Your task to perform on an android device: Open notification settings Image 0: 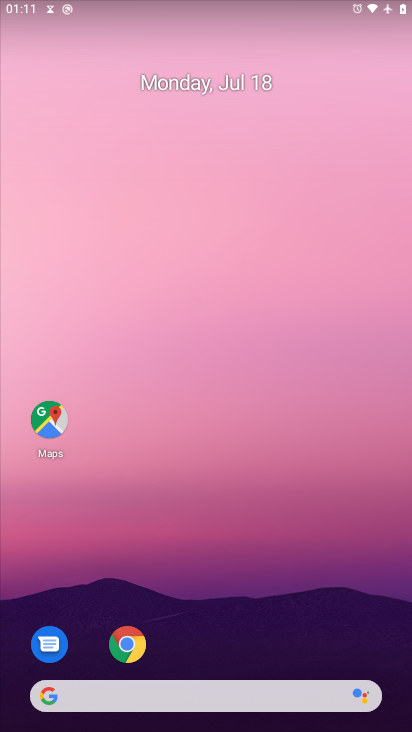
Step 0: press home button
Your task to perform on an android device: Open notification settings Image 1: 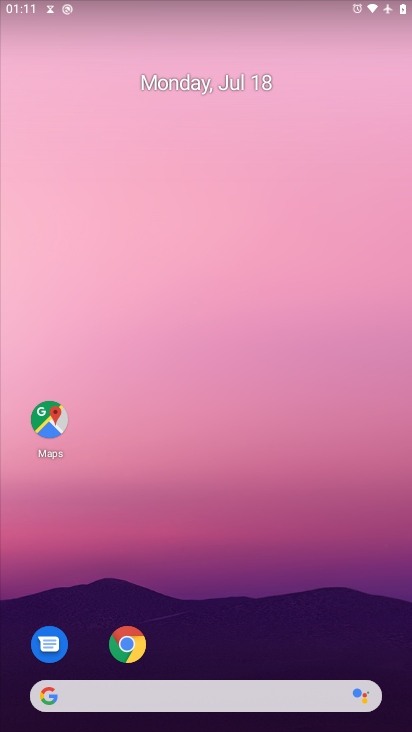
Step 1: drag from (221, 650) to (216, 6)
Your task to perform on an android device: Open notification settings Image 2: 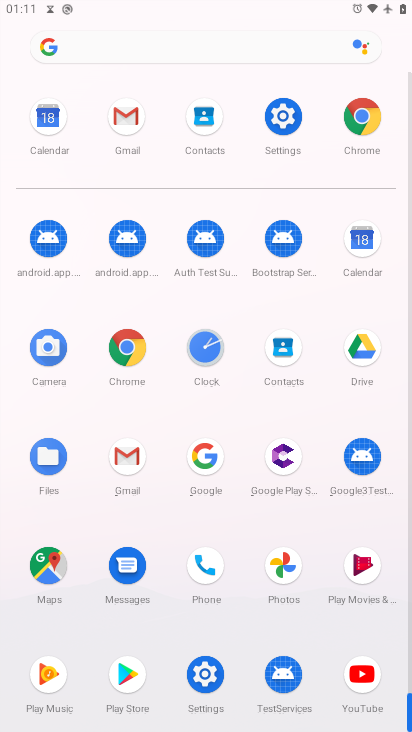
Step 2: click (272, 126)
Your task to perform on an android device: Open notification settings Image 3: 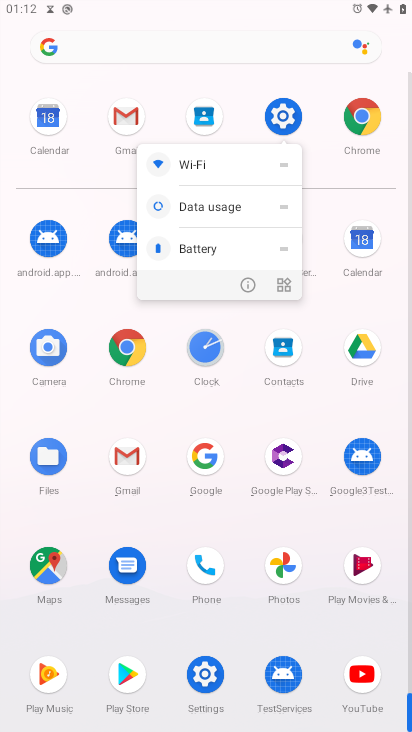
Step 3: click (281, 120)
Your task to perform on an android device: Open notification settings Image 4: 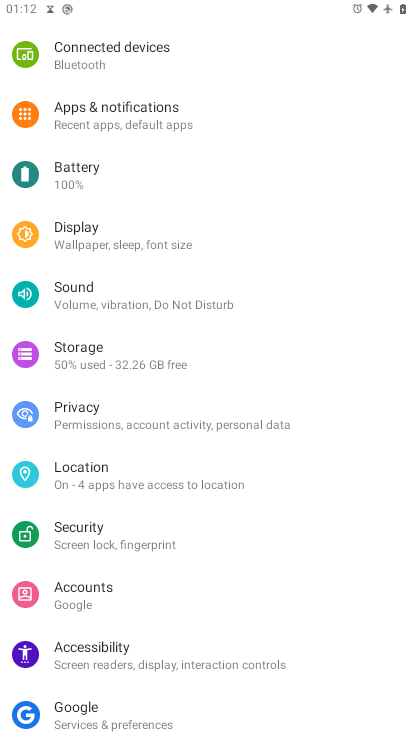
Step 4: click (133, 124)
Your task to perform on an android device: Open notification settings Image 5: 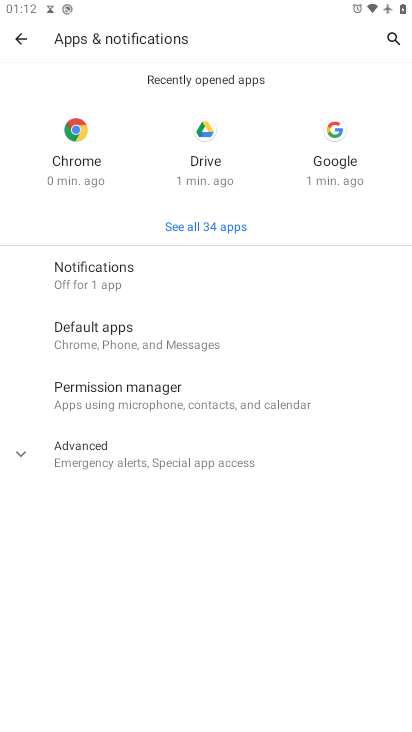
Step 5: click (112, 267)
Your task to perform on an android device: Open notification settings Image 6: 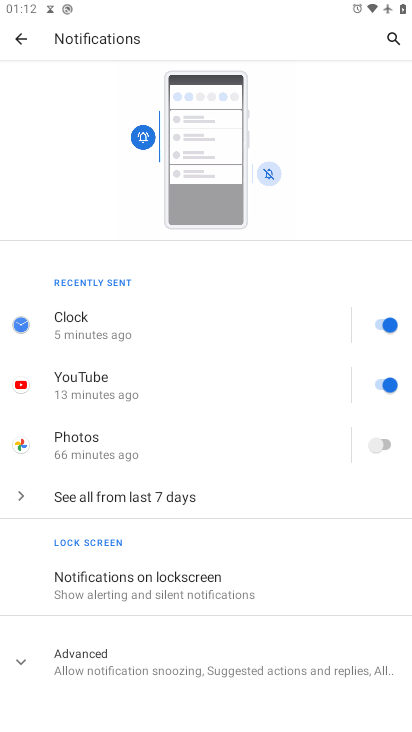
Step 6: task complete